Your task to perform on an android device: open app "Instagram" (install if not already installed) Image 0: 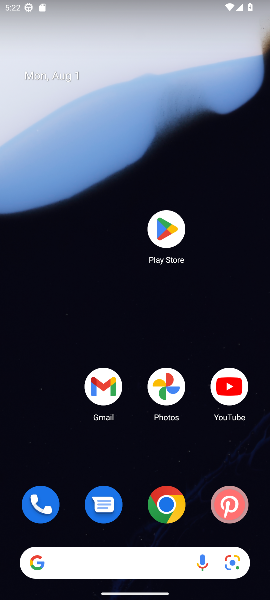
Step 0: click (172, 231)
Your task to perform on an android device: open app "Instagram" (install if not already installed) Image 1: 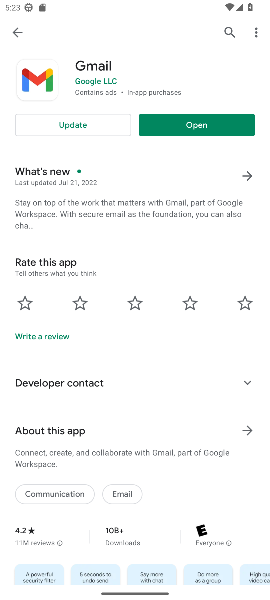
Step 1: click (224, 26)
Your task to perform on an android device: open app "Instagram" (install if not already installed) Image 2: 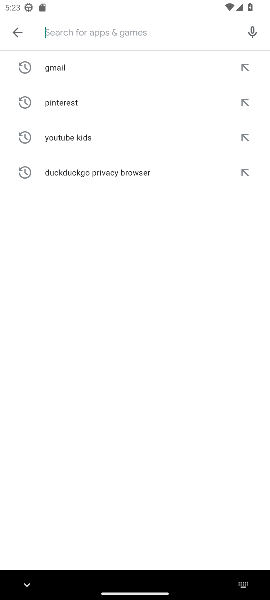
Step 2: type "Instagram"
Your task to perform on an android device: open app "Instagram" (install if not already installed) Image 3: 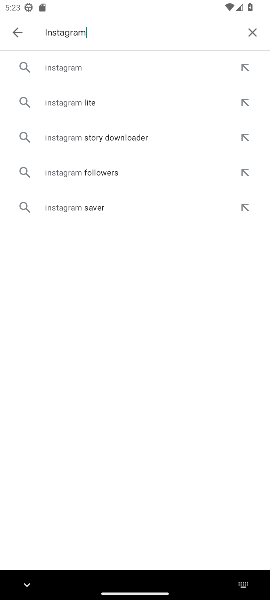
Step 3: click (75, 69)
Your task to perform on an android device: open app "Instagram" (install if not already installed) Image 4: 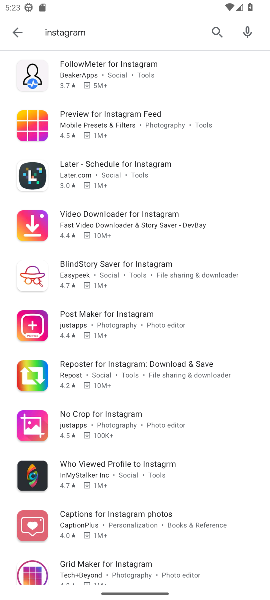
Step 4: task complete